Your task to perform on an android device: clear history in the chrome app Image 0: 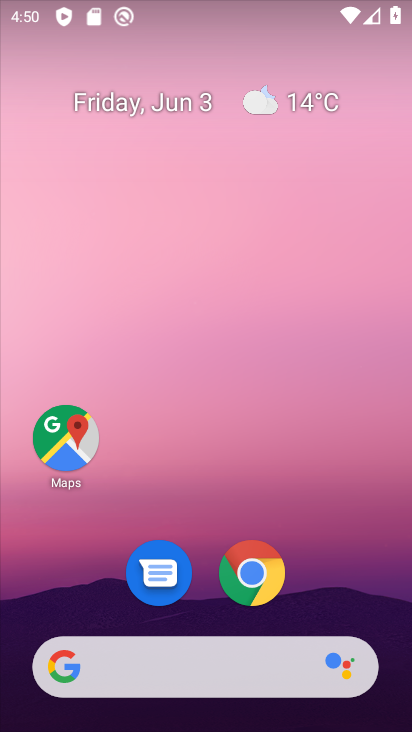
Step 0: click (252, 580)
Your task to perform on an android device: clear history in the chrome app Image 1: 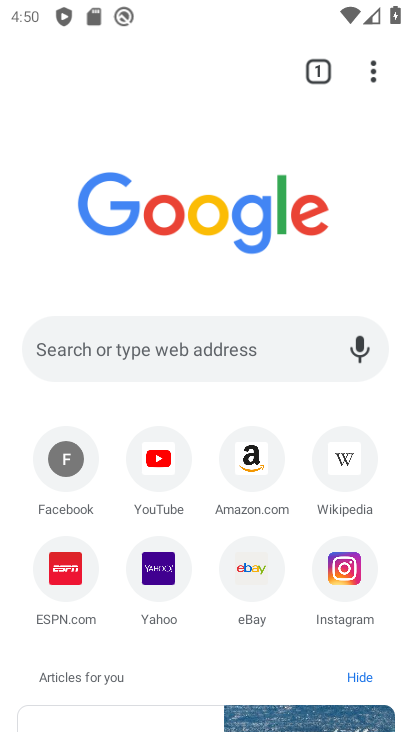
Step 1: click (370, 72)
Your task to perform on an android device: clear history in the chrome app Image 2: 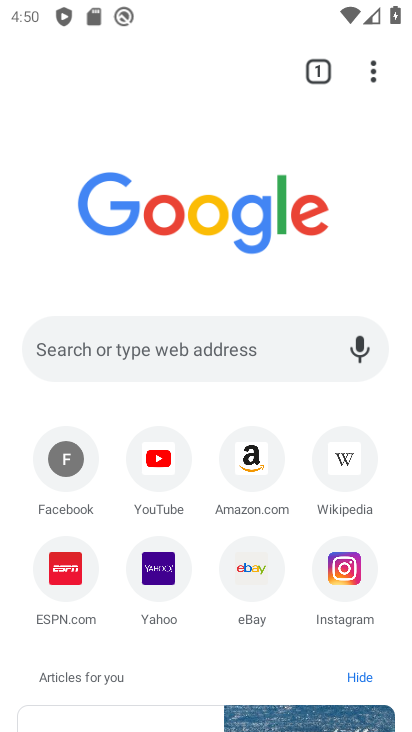
Step 2: task complete